Your task to perform on an android device: turn off picture-in-picture Image 0: 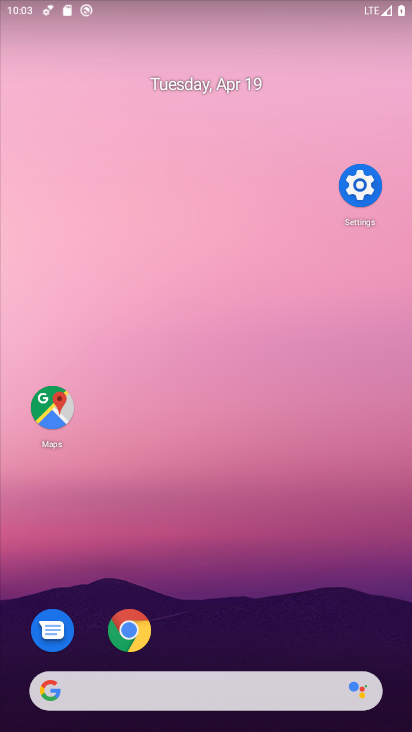
Step 0: drag from (215, 661) to (305, 90)
Your task to perform on an android device: turn off picture-in-picture Image 1: 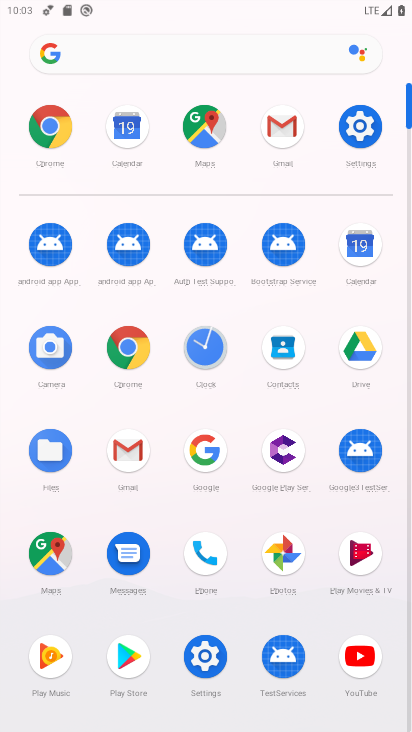
Step 1: click (355, 142)
Your task to perform on an android device: turn off picture-in-picture Image 2: 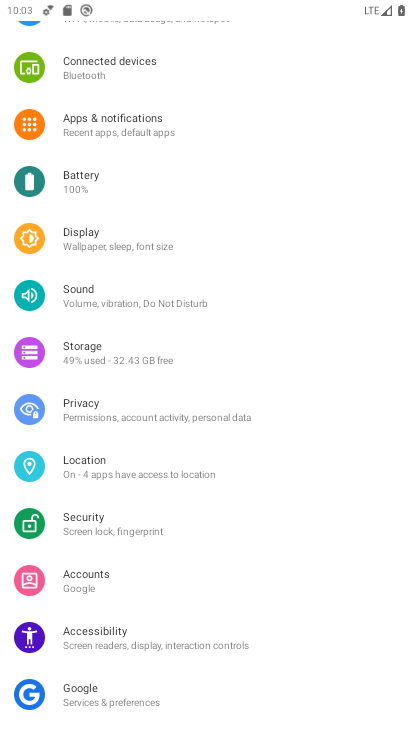
Step 2: drag from (194, 484) to (235, 188)
Your task to perform on an android device: turn off picture-in-picture Image 3: 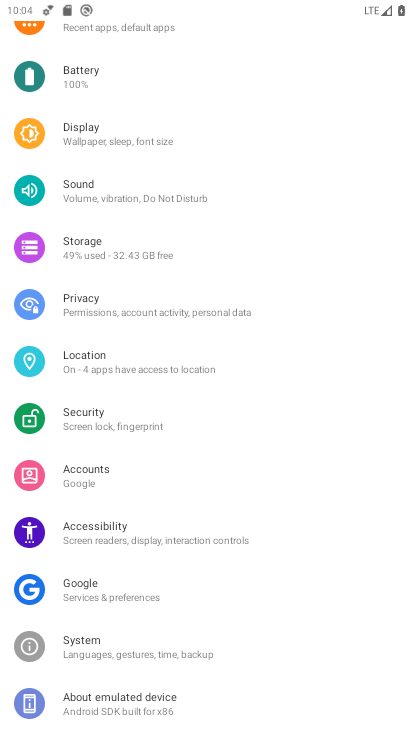
Step 3: drag from (160, 537) to (225, 143)
Your task to perform on an android device: turn off picture-in-picture Image 4: 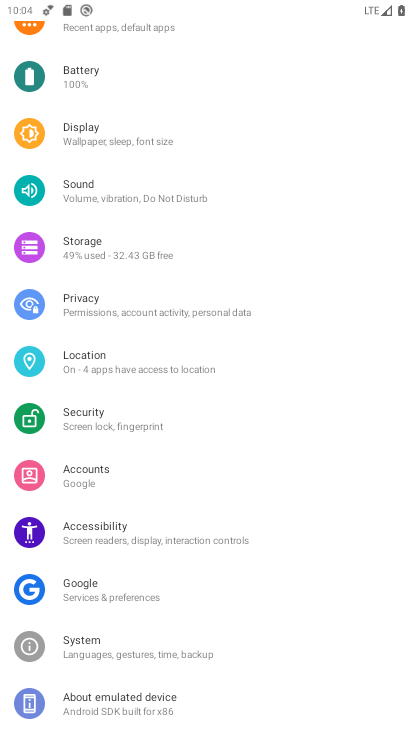
Step 4: drag from (179, 226) to (171, 546)
Your task to perform on an android device: turn off picture-in-picture Image 5: 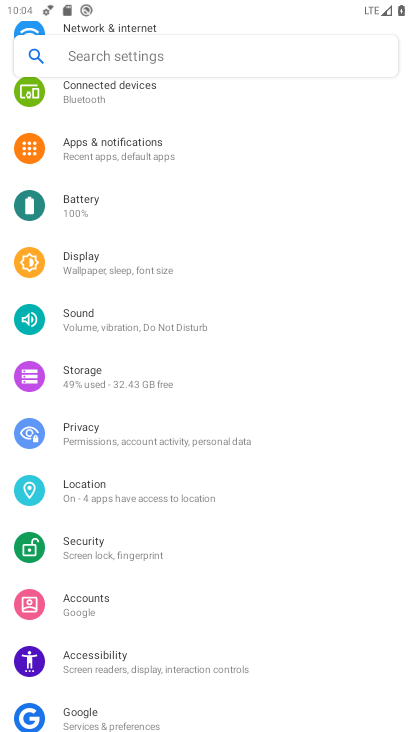
Step 5: click (173, 158)
Your task to perform on an android device: turn off picture-in-picture Image 6: 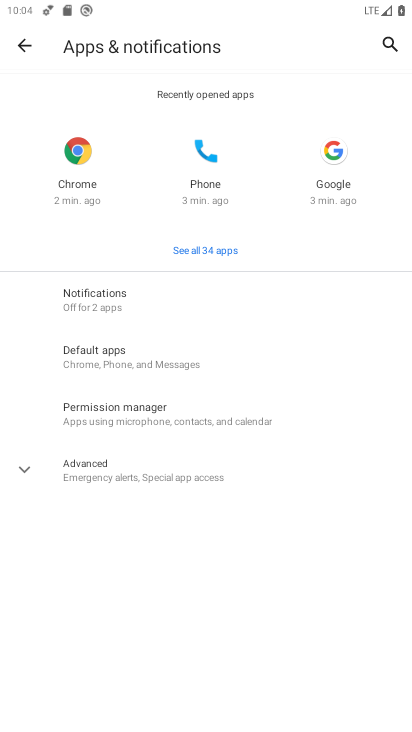
Step 6: click (179, 480)
Your task to perform on an android device: turn off picture-in-picture Image 7: 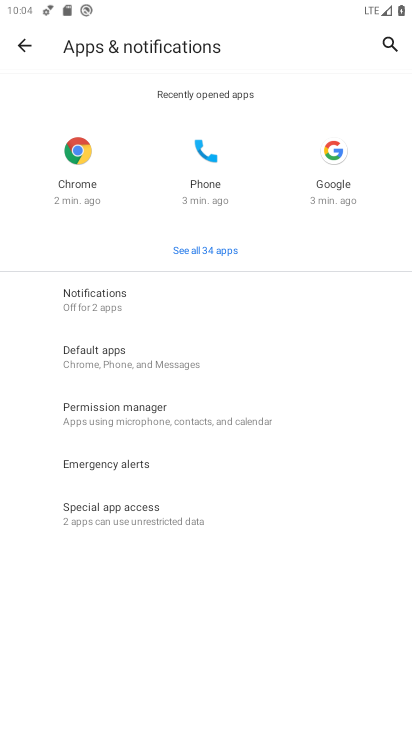
Step 7: click (191, 526)
Your task to perform on an android device: turn off picture-in-picture Image 8: 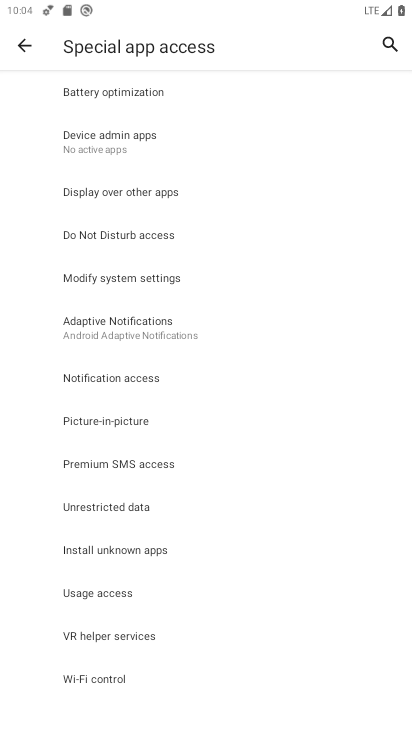
Step 8: click (146, 428)
Your task to perform on an android device: turn off picture-in-picture Image 9: 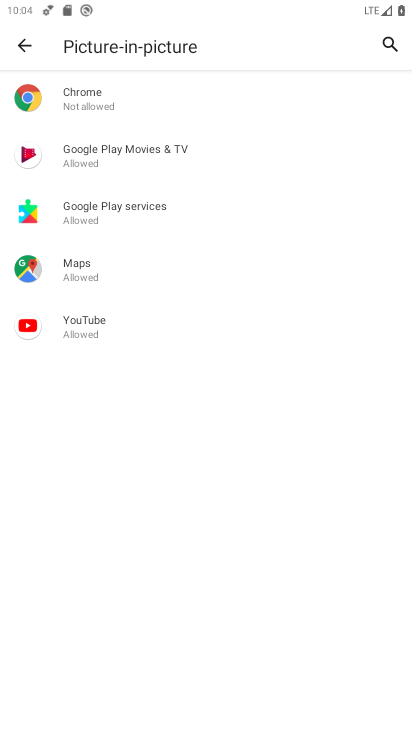
Step 9: task complete